Your task to perform on an android device: Add "acer nitro" to the cart on ebay Image 0: 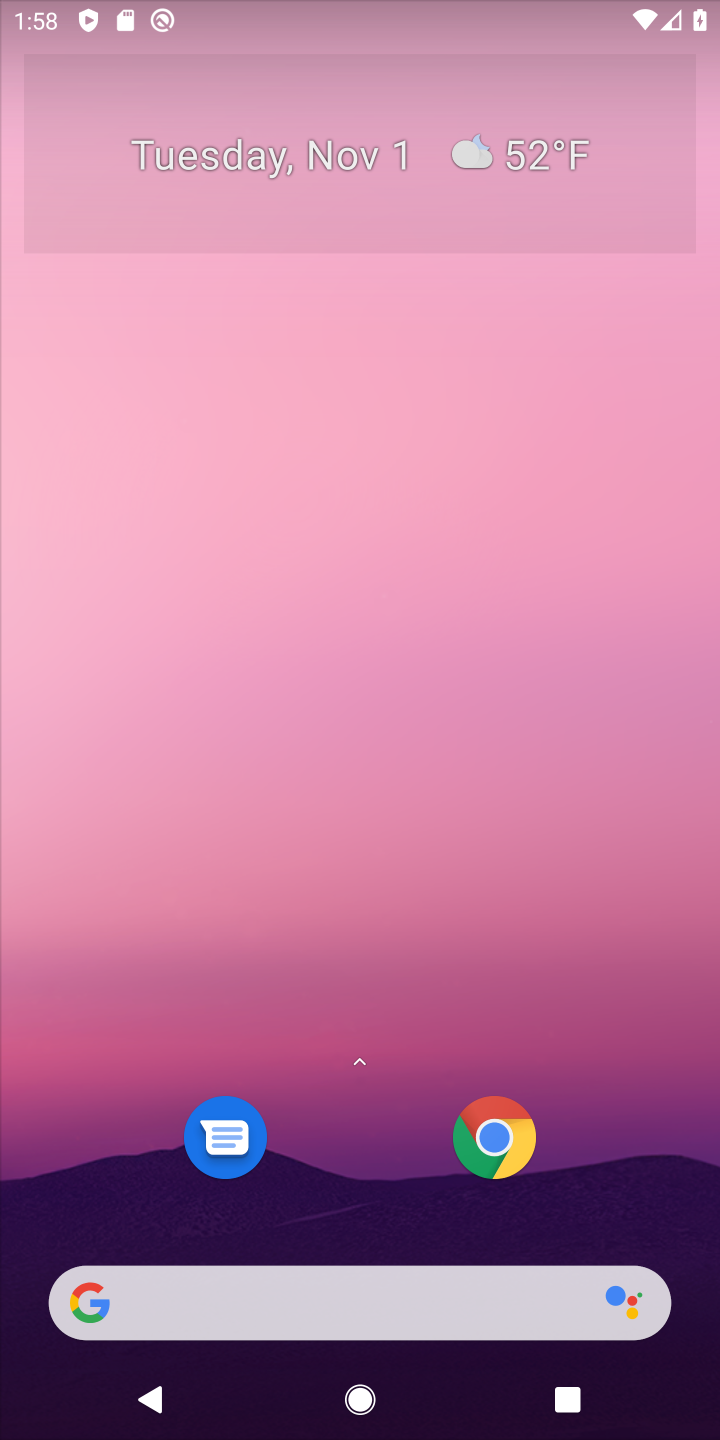
Step 0: press home button
Your task to perform on an android device: Add "acer nitro" to the cart on ebay Image 1: 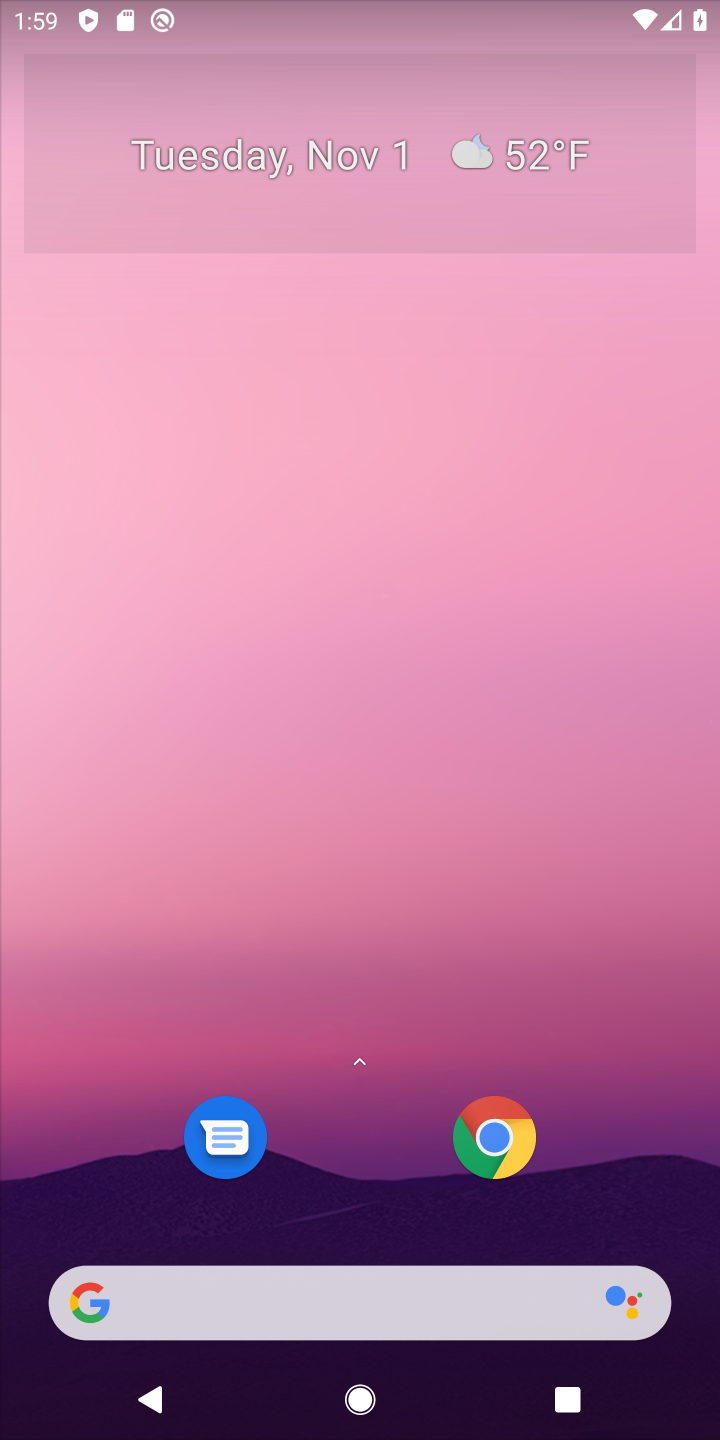
Step 1: click (292, 1304)
Your task to perform on an android device: Add "acer nitro" to the cart on ebay Image 2: 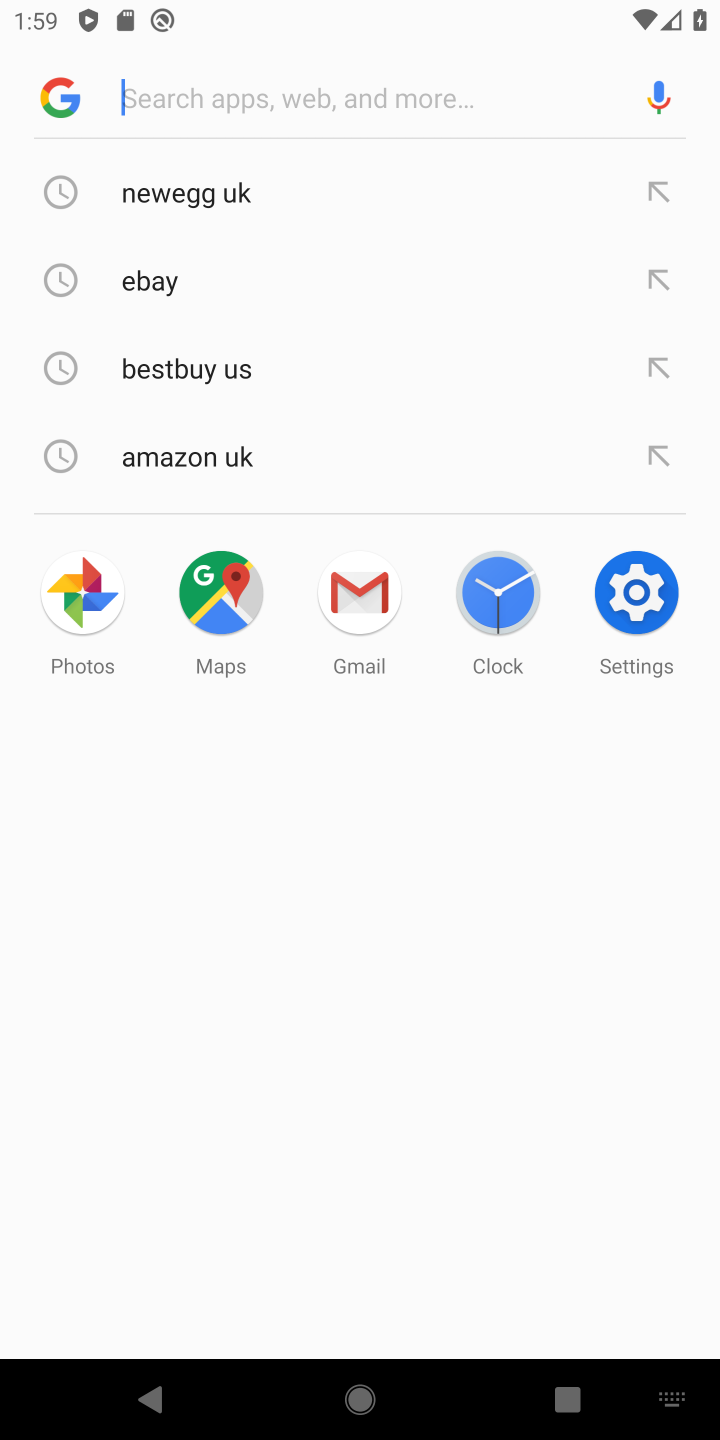
Step 2: type "e"
Your task to perform on an android device: Add "acer nitro" to the cart on ebay Image 3: 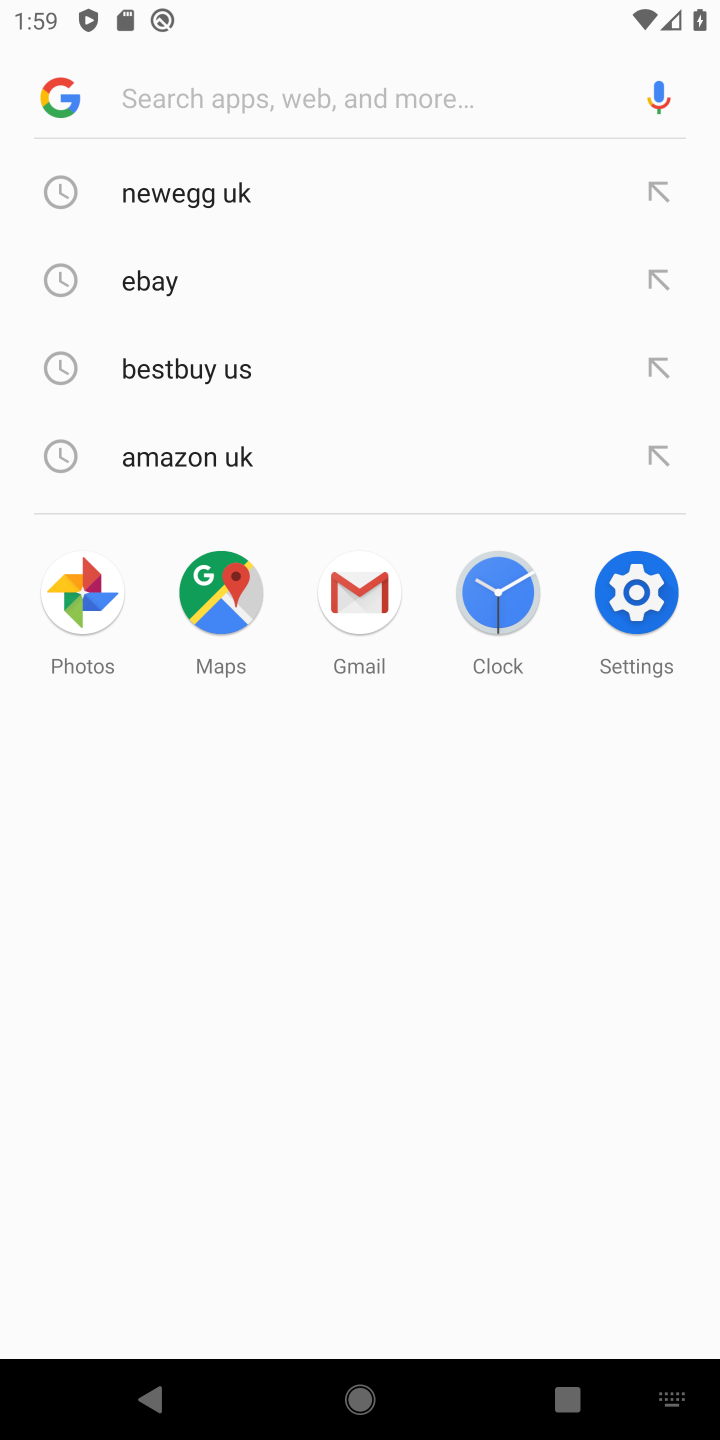
Step 3: click (290, 280)
Your task to perform on an android device: Add "acer nitro" to the cart on ebay Image 4: 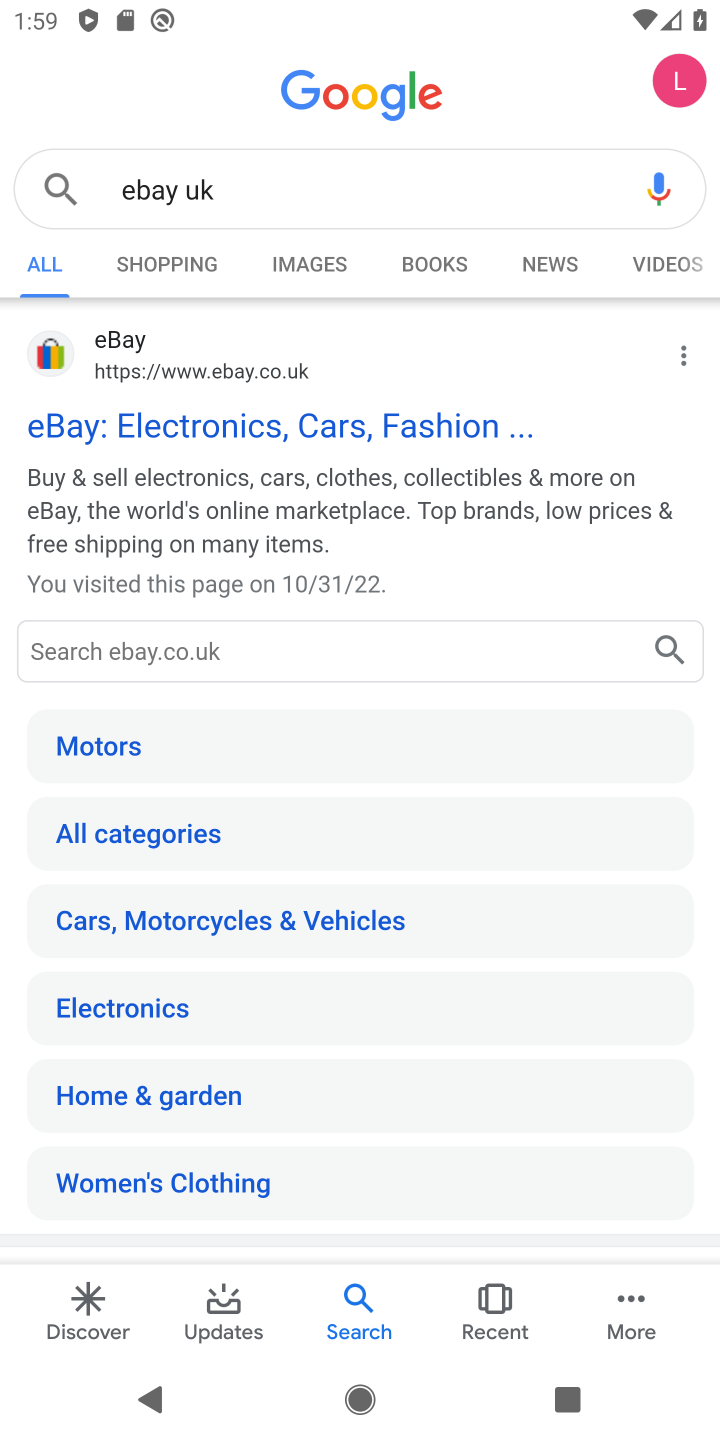
Step 4: click (182, 408)
Your task to perform on an android device: Add "acer nitro" to the cart on ebay Image 5: 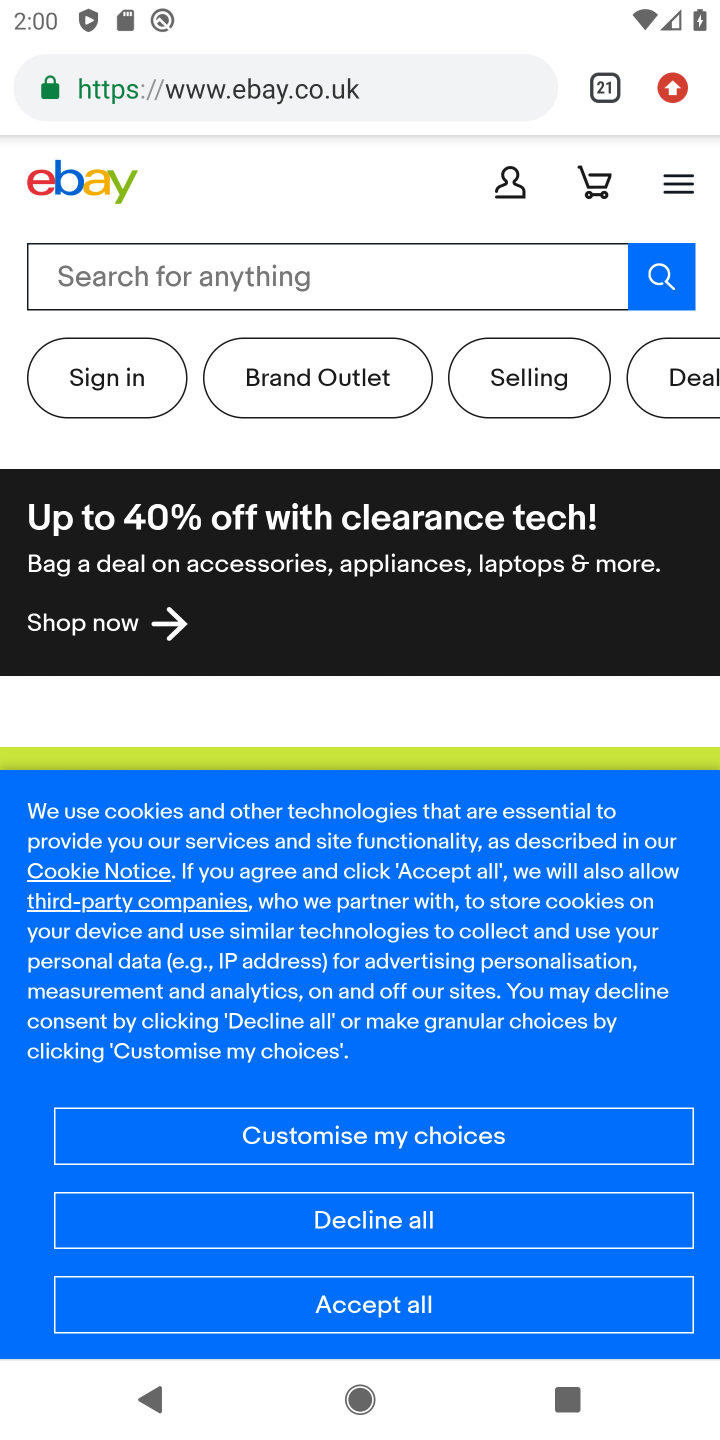
Step 5: click (309, 262)
Your task to perform on an android device: Add "acer nitro" to the cart on ebay Image 6: 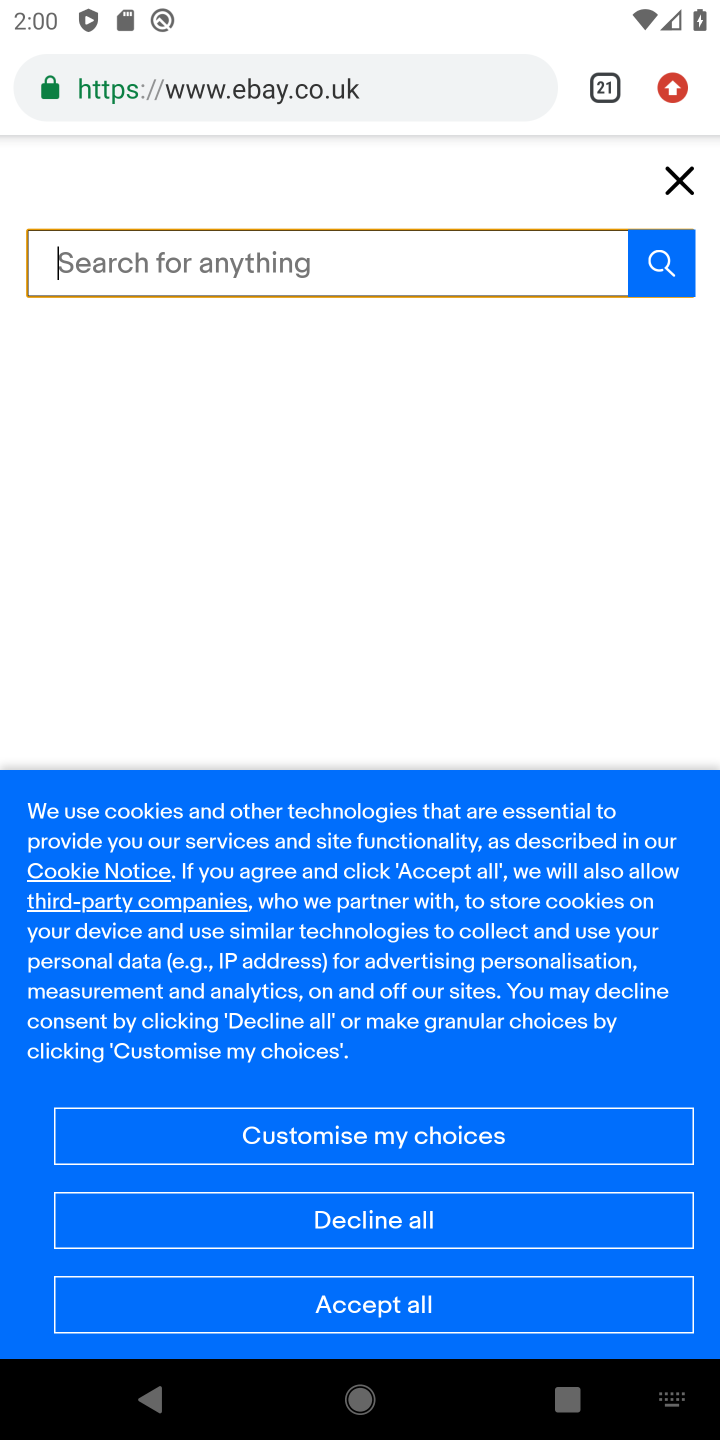
Step 6: type "acer nitro"
Your task to perform on an android device: Add "acer nitro" to the cart on ebay Image 7: 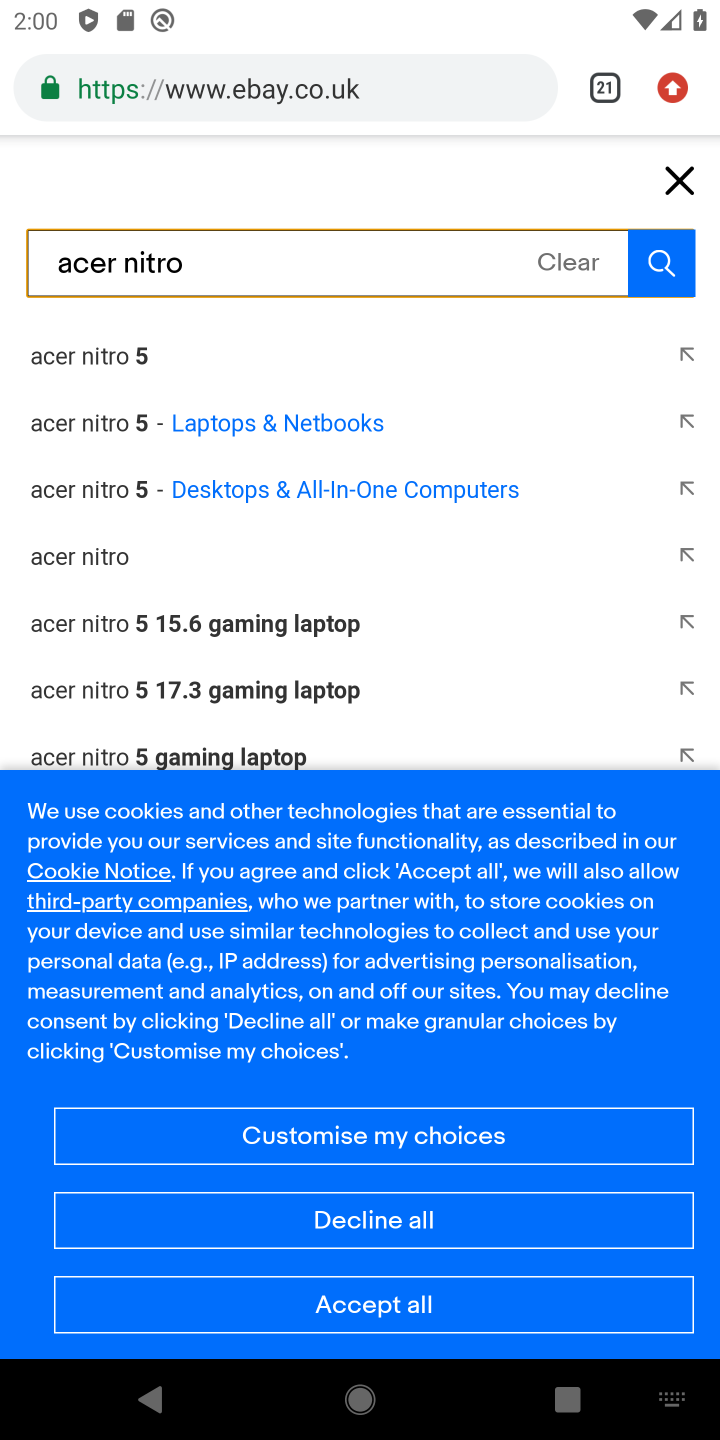
Step 7: click (102, 544)
Your task to perform on an android device: Add "acer nitro" to the cart on ebay Image 8: 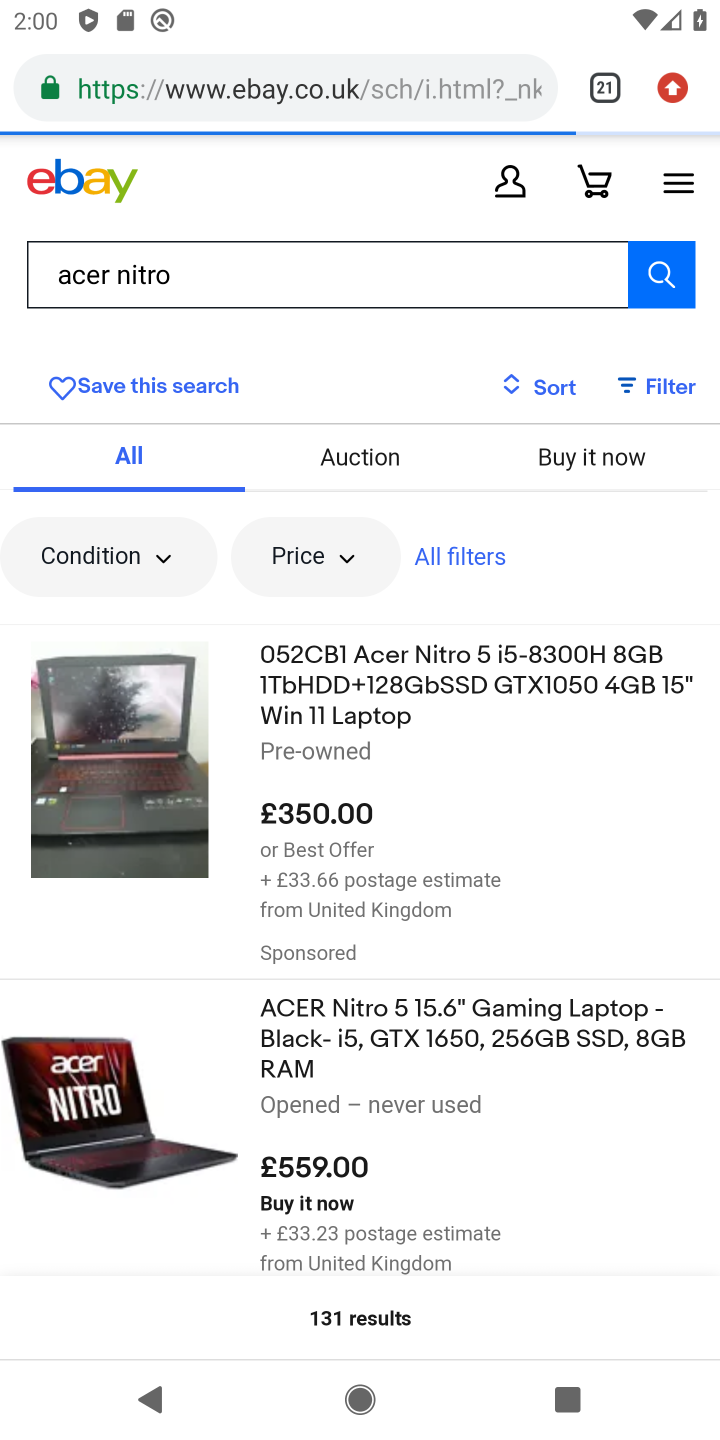
Step 8: click (393, 673)
Your task to perform on an android device: Add "acer nitro" to the cart on ebay Image 9: 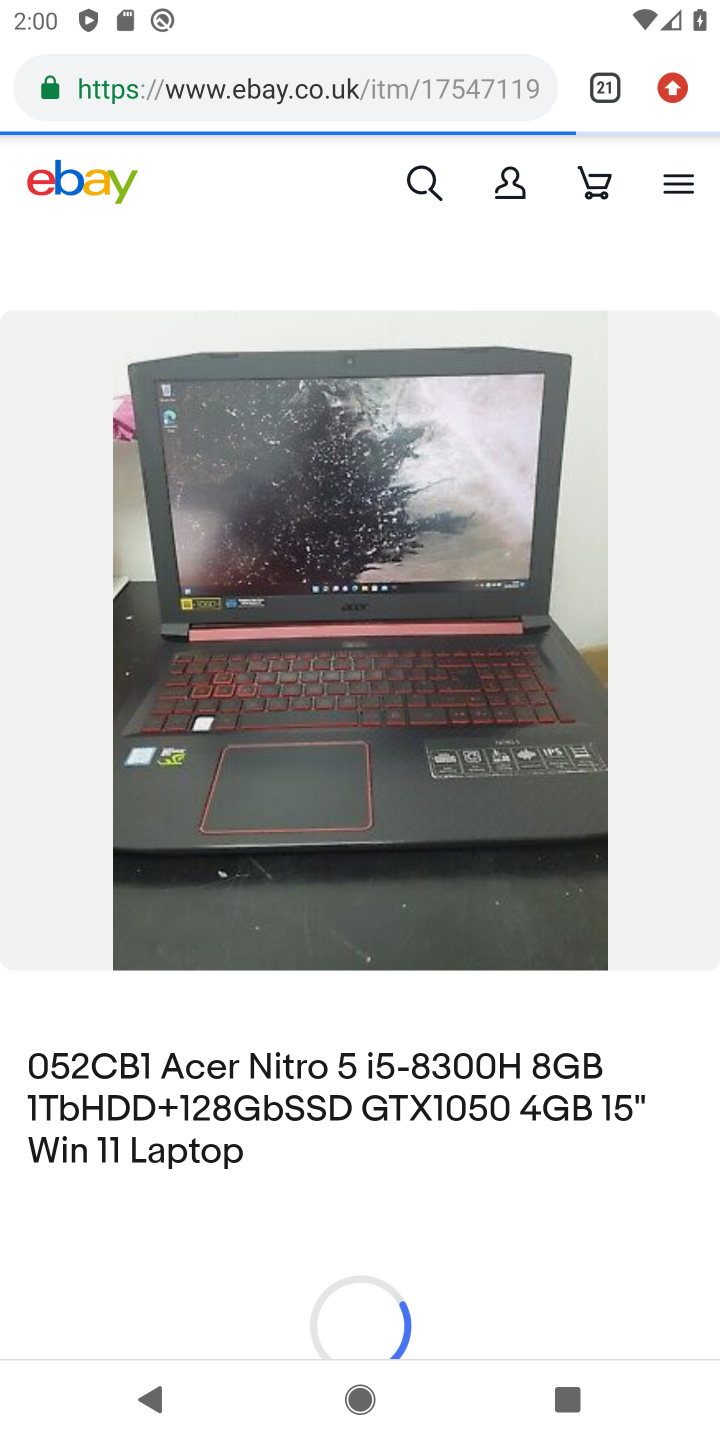
Step 9: drag from (418, 1075) to (598, 329)
Your task to perform on an android device: Add "acer nitro" to the cart on ebay Image 10: 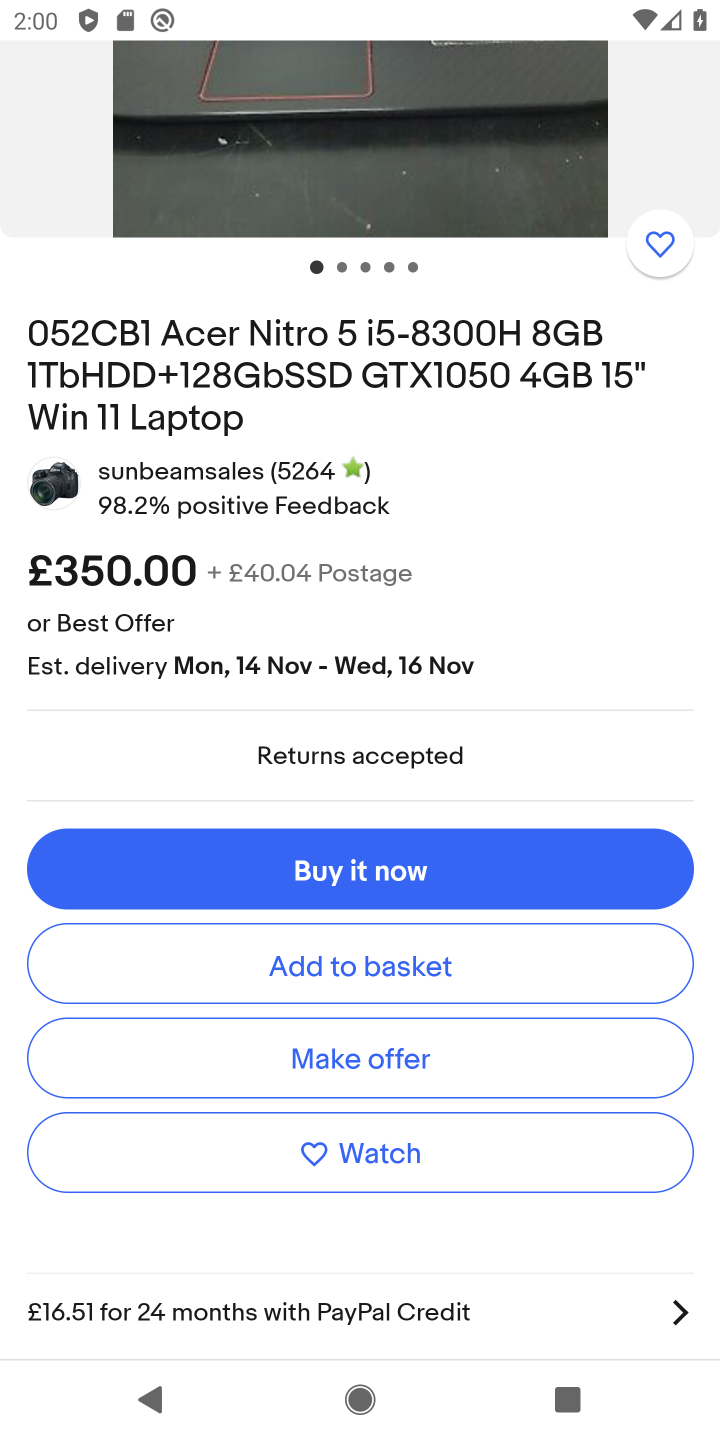
Step 10: click (452, 978)
Your task to perform on an android device: Add "acer nitro" to the cart on ebay Image 11: 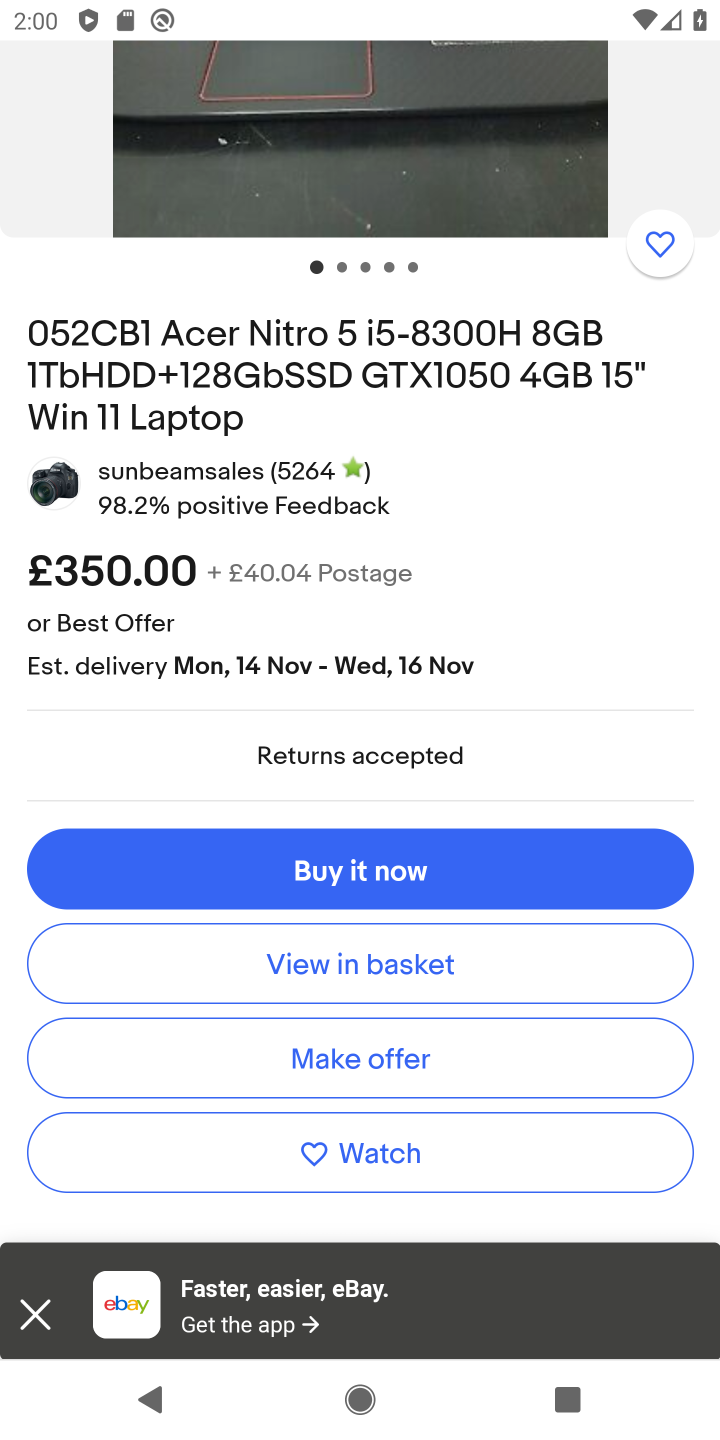
Step 11: task complete